Your task to perform on an android device: Go to Yahoo.com Image 0: 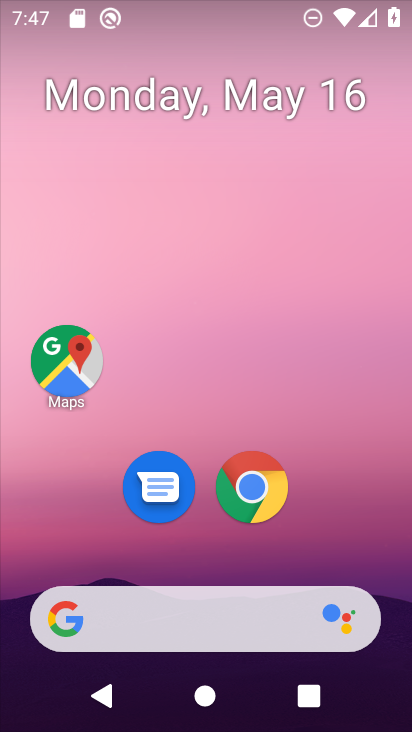
Step 0: click (262, 622)
Your task to perform on an android device: Go to Yahoo.com Image 1: 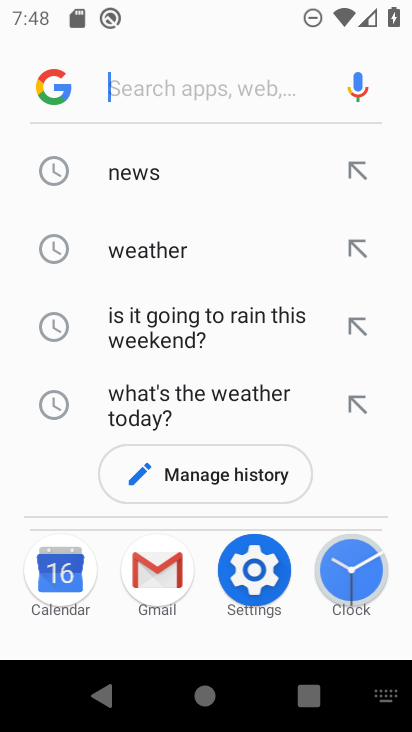
Step 1: type "yahoo.com"
Your task to perform on an android device: Go to Yahoo.com Image 2: 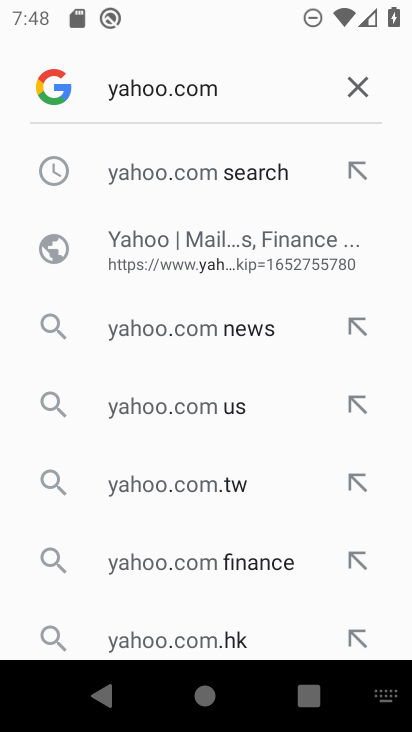
Step 2: click (147, 172)
Your task to perform on an android device: Go to Yahoo.com Image 3: 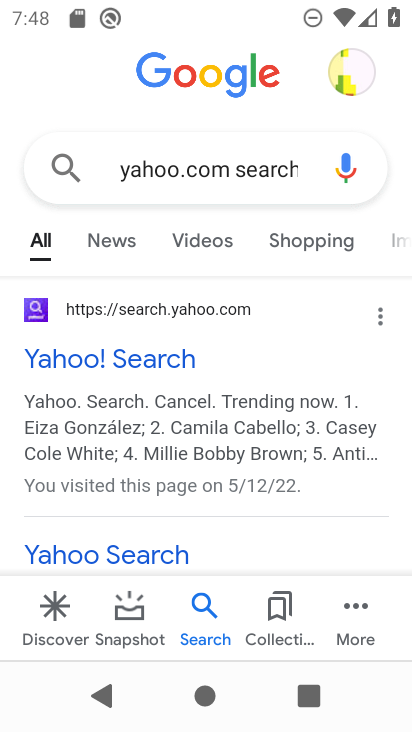
Step 3: click (91, 357)
Your task to perform on an android device: Go to Yahoo.com Image 4: 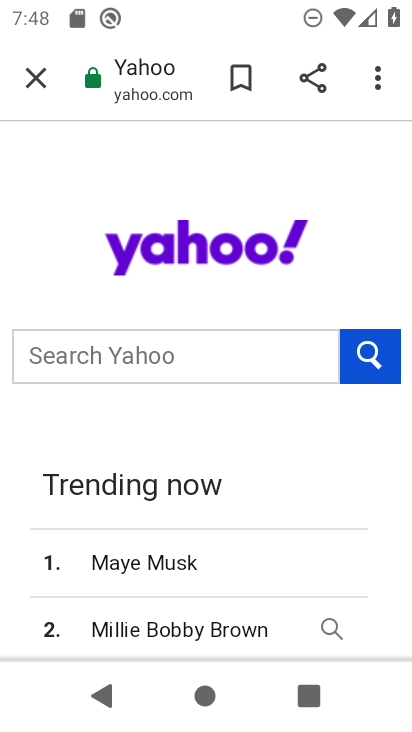
Step 4: click (35, 71)
Your task to perform on an android device: Go to Yahoo.com Image 5: 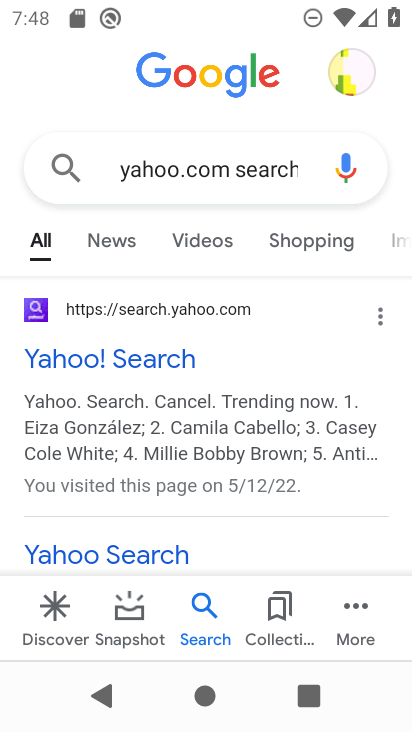
Step 5: drag from (186, 417) to (172, 139)
Your task to perform on an android device: Go to Yahoo.com Image 6: 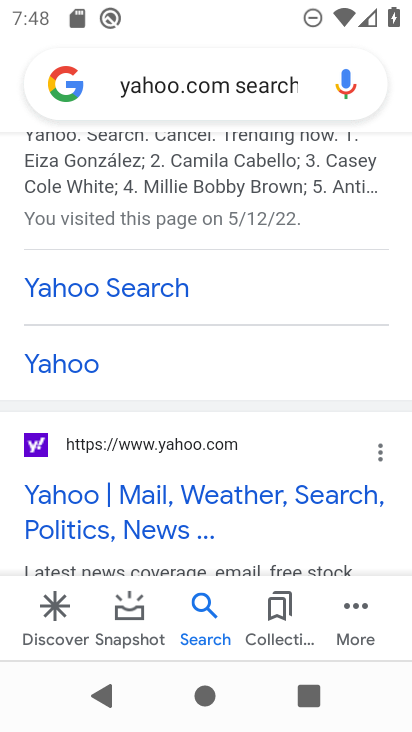
Step 6: click (89, 489)
Your task to perform on an android device: Go to Yahoo.com Image 7: 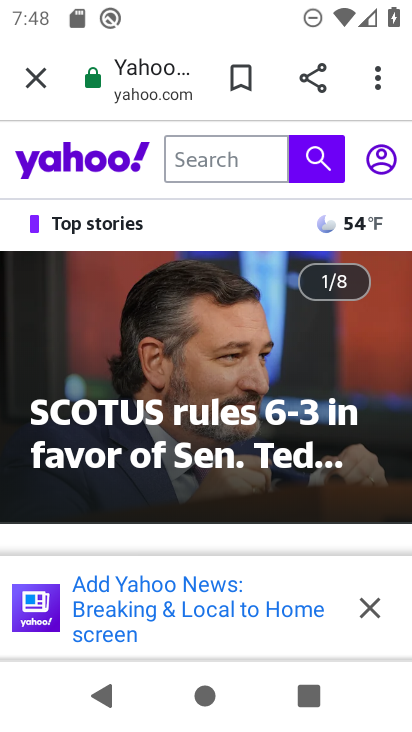
Step 7: task complete